Your task to perform on an android device: What is the news today? Image 0: 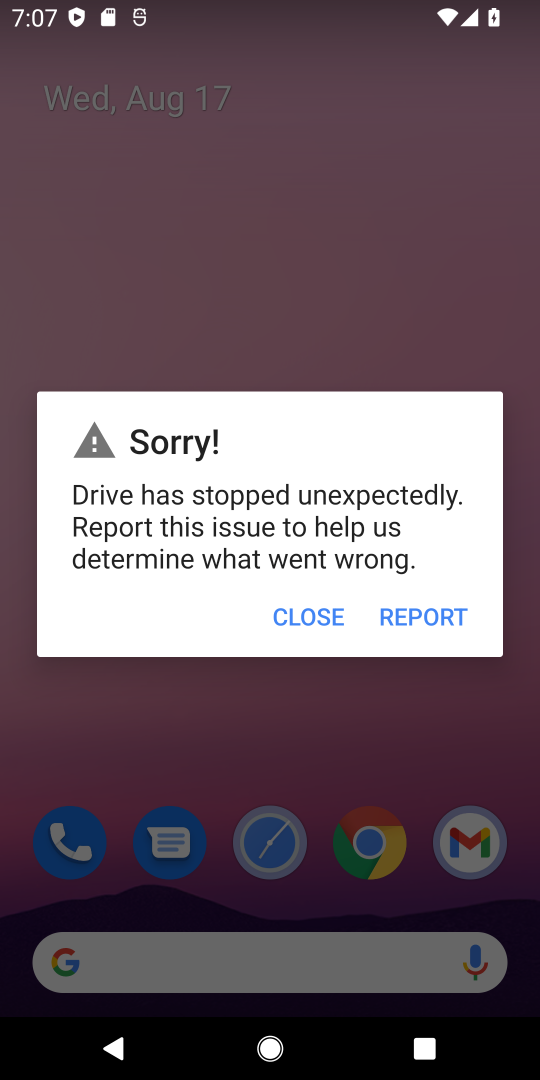
Step 0: press home button
Your task to perform on an android device: What is the news today? Image 1: 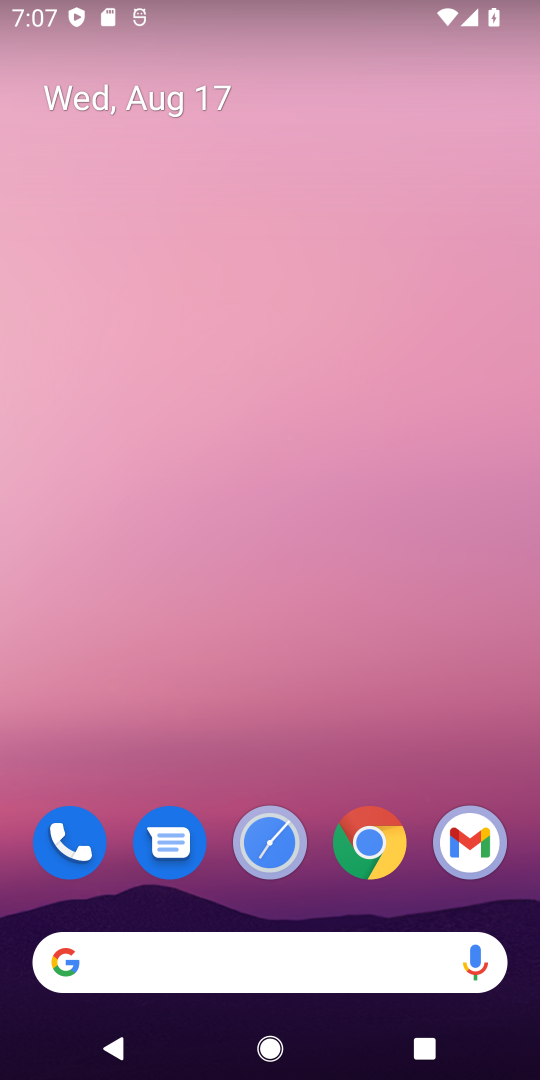
Step 1: click (283, 965)
Your task to perform on an android device: What is the news today? Image 2: 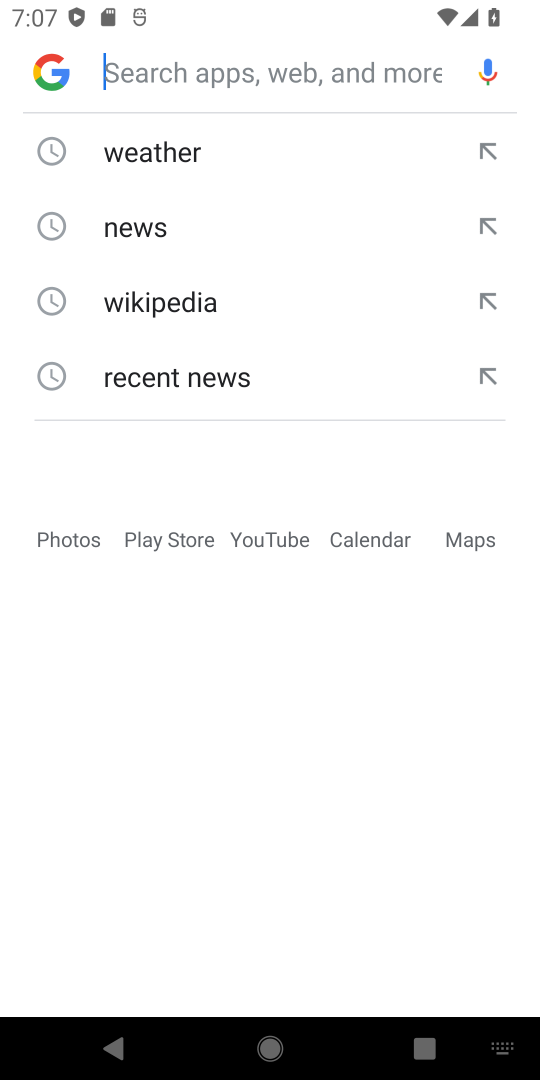
Step 2: click (150, 217)
Your task to perform on an android device: What is the news today? Image 3: 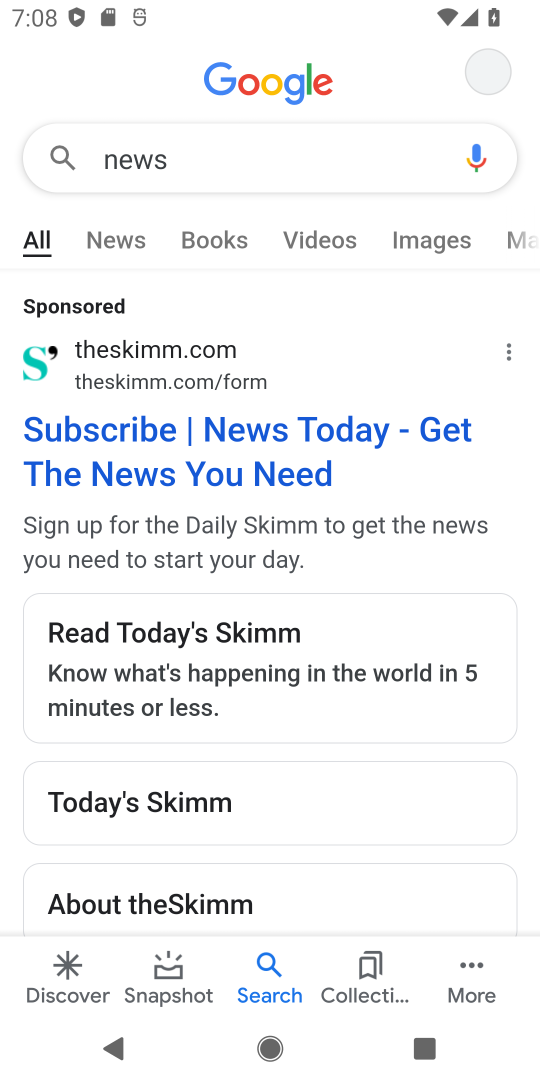
Step 3: click (111, 233)
Your task to perform on an android device: What is the news today? Image 4: 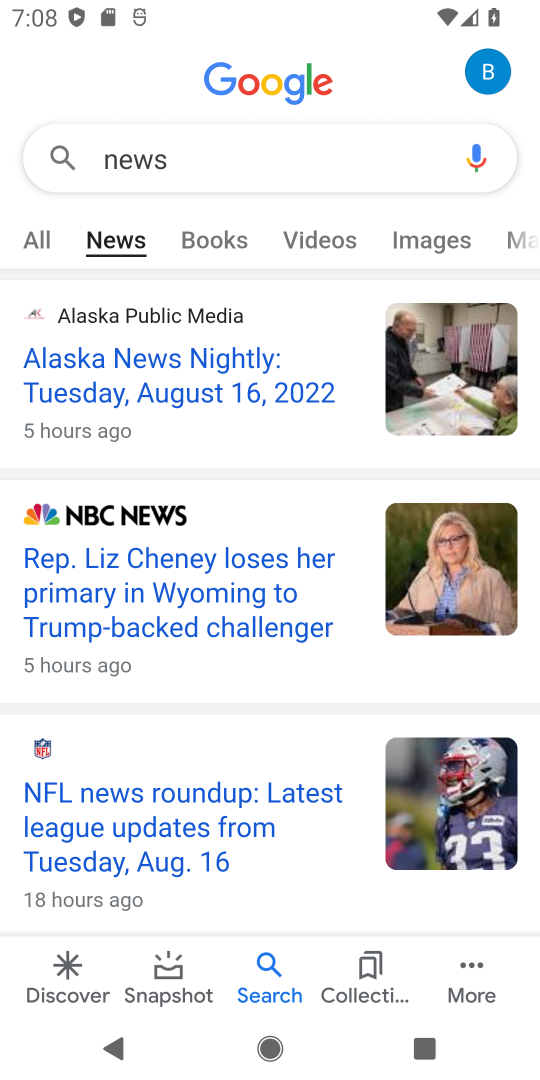
Step 4: task complete